Your task to perform on an android device: Show me the alarms in the clock app Image 0: 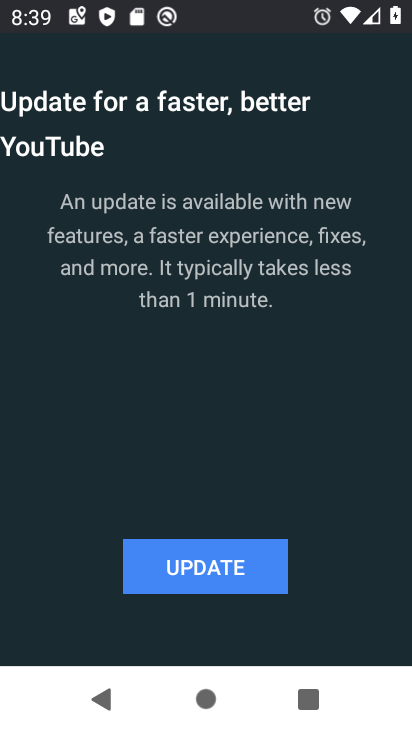
Step 0: press home button
Your task to perform on an android device: Show me the alarms in the clock app Image 1: 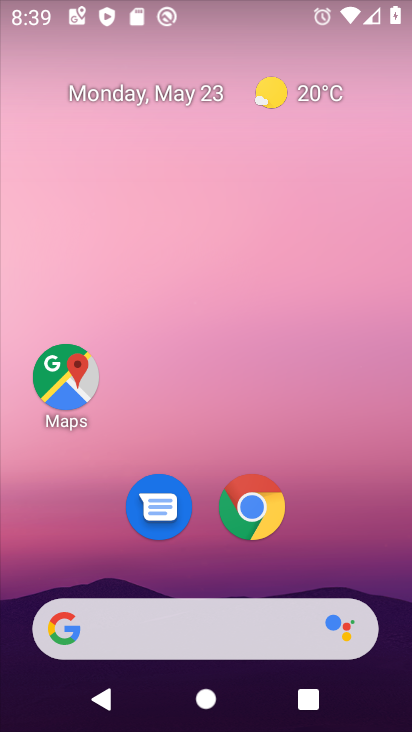
Step 1: drag from (367, 594) to (369, 22)
Your task to perform on an android device: Show me the alarms in the clock app Image 2: 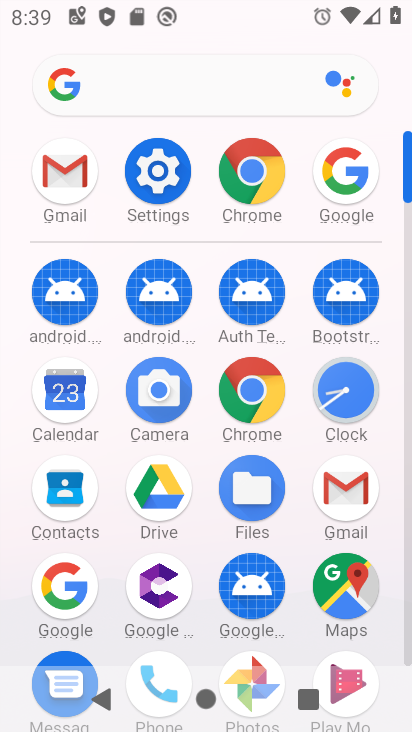
Step 2: click (335, 399)
Your task to perform on an android device: Show me the alarms in the clock app Image 3: 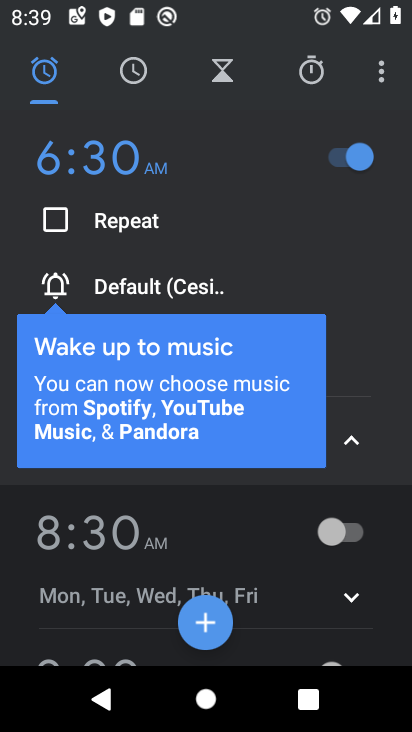
Step 3: task complete